Your task to perform on an android device: What is the average speed of a car? Image 0: 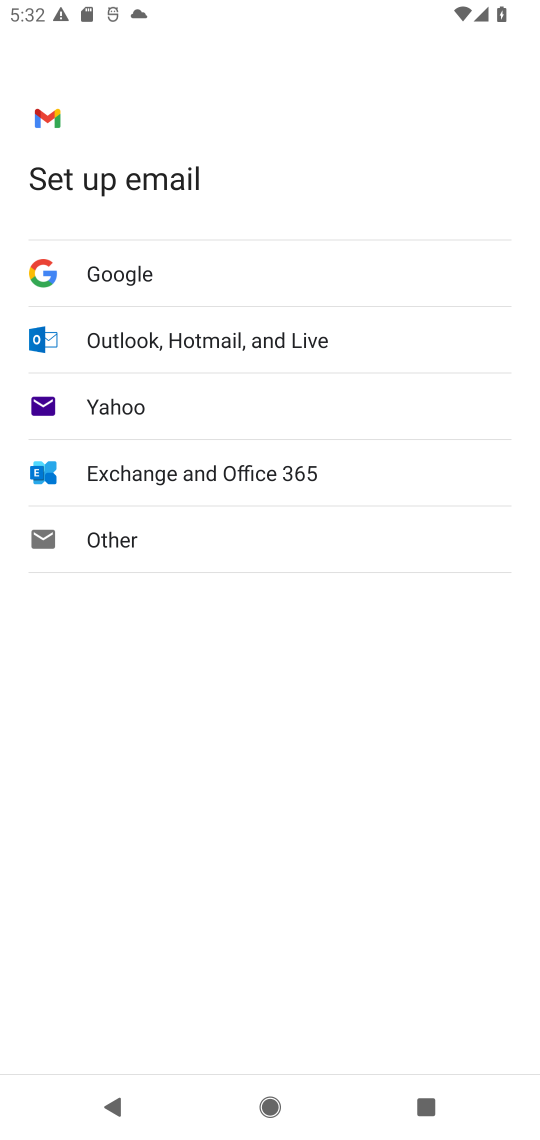
Step 0: press home button
Your task to perform on an android device: What is the average speed of a car? Image 1: 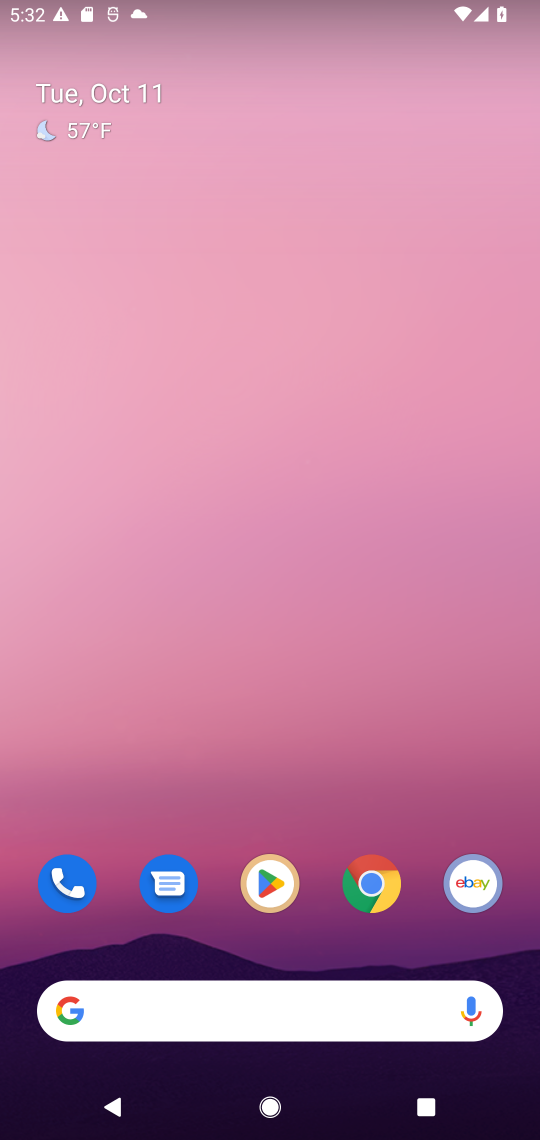
Step 1: drag from (482, 321) to (533, 717)
Your task to perform on an android device: What is the average speed of a car? Image 2: 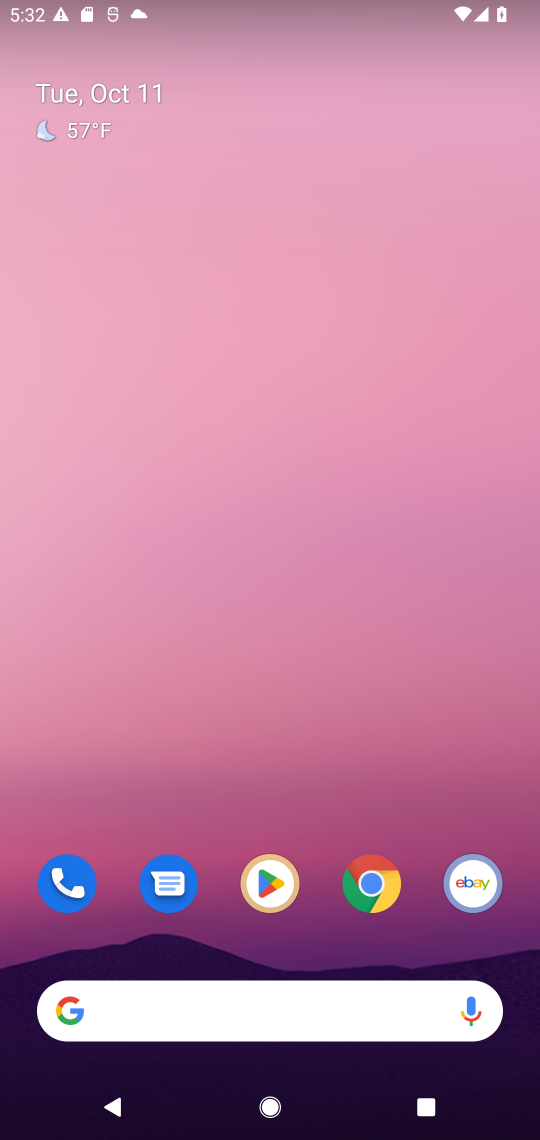
Step 2: drag from (336, 929) to (248, 99)
Your task to perform on an android device: What is the average speed of a car? Image 3: 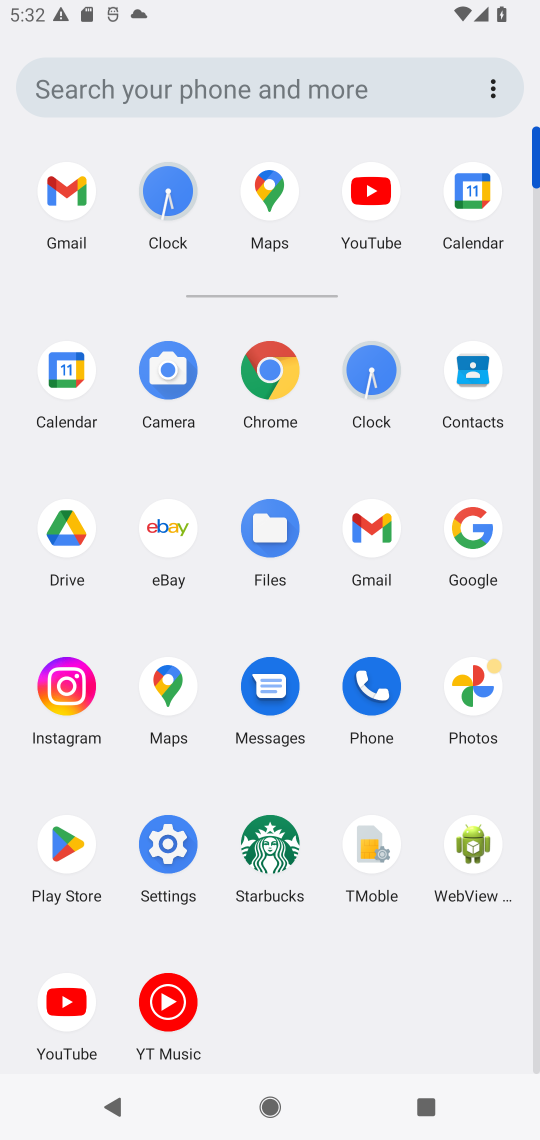
Step 3: click (271, 381)
Your task to perform on an android device: What is the average speed of a car? Image 4: 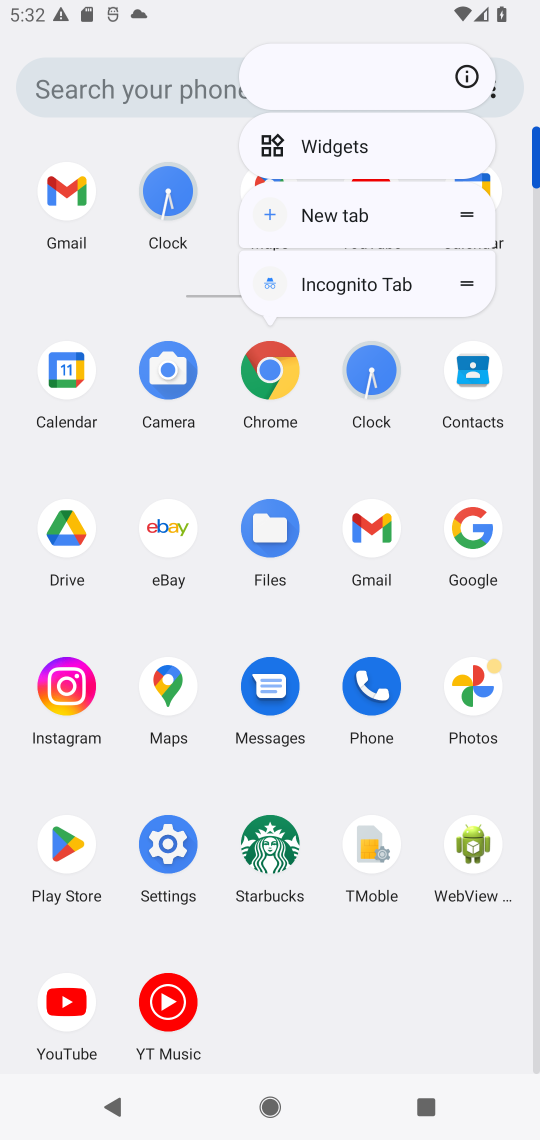
Step 4: click (264, 369)
Your task to perform on an android device: What is the average speed of a car? Image 5: 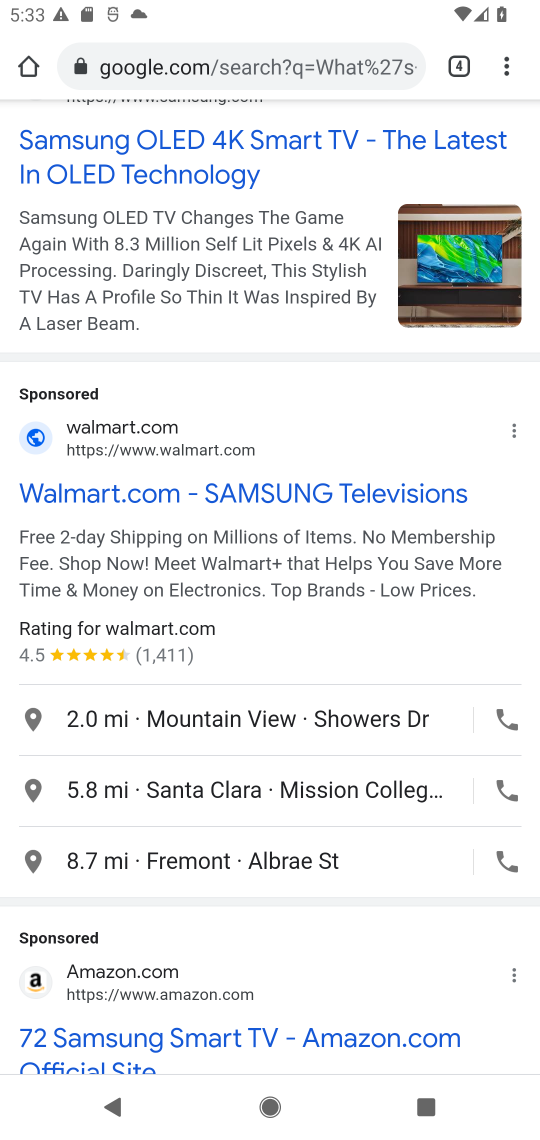
Step 5: click (225, 67)
Your task to perform on an android device: What is the average speed of a car? Image 6: 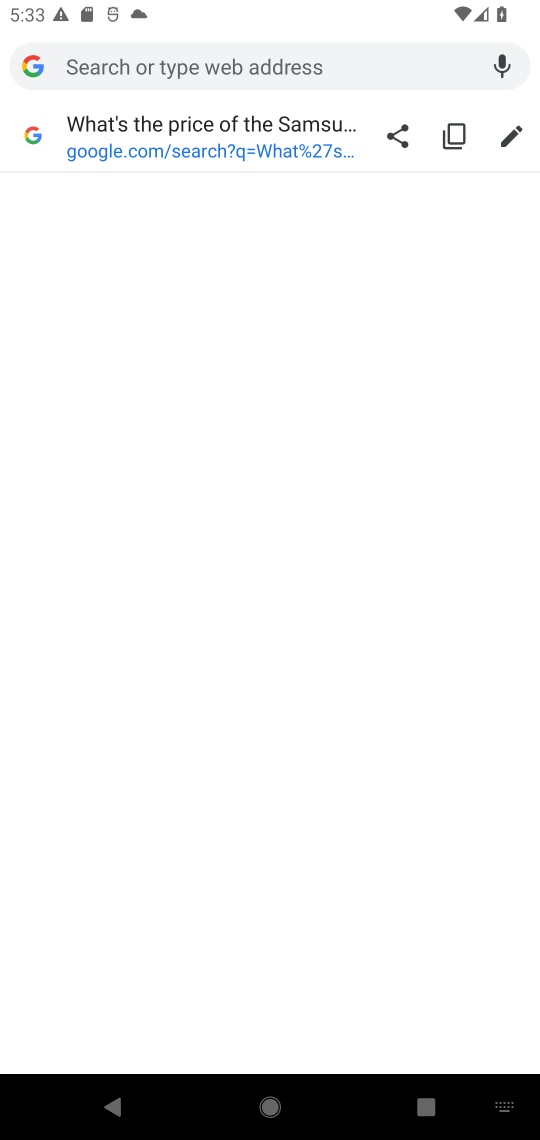
Step 6: type "What is the avarage speed of a car?"
Your task to perform on an android device: What is the average speed of a car? Image 7: 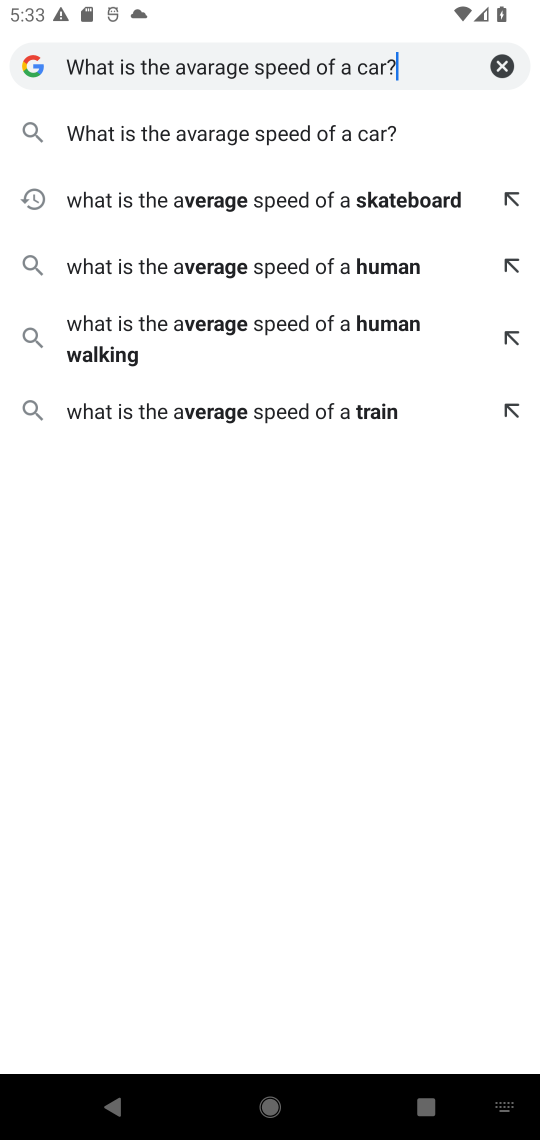
Step 7: press enter
Your task to perform on an android device: What is the average speed of a car? Image 8: 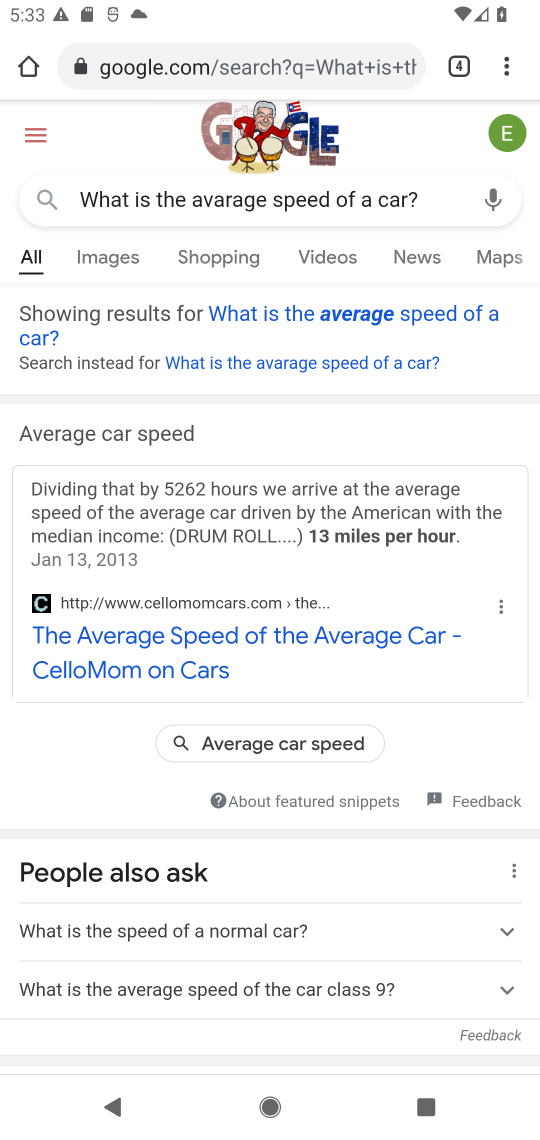
Step 8: click (386, 310)
Your task to perform on an android device: What is the average speed of a car? Image 9: 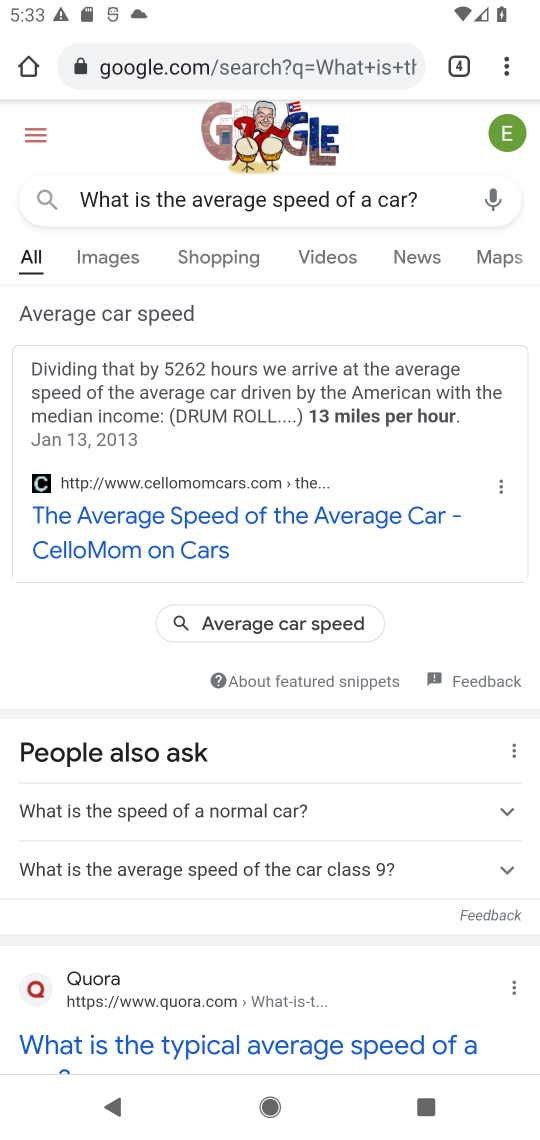
Step 9: task complete